Your task to perform on an android device: Go to accessibility settings Image 0: 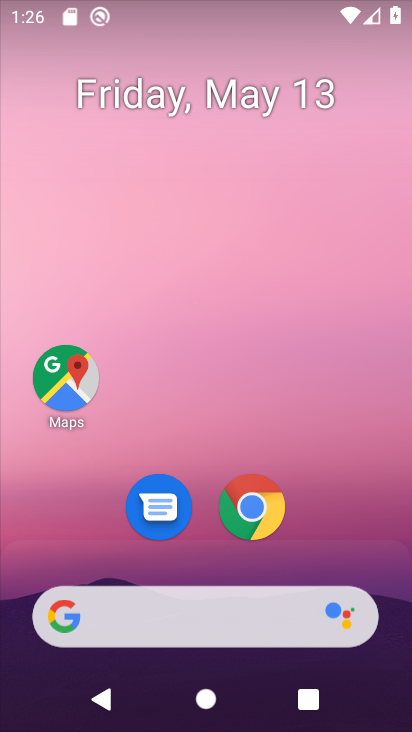
Step 0: drag from (198, 334) to (246, 126)
Your task to perform on an android device: Go to accessibility settings Image 1: 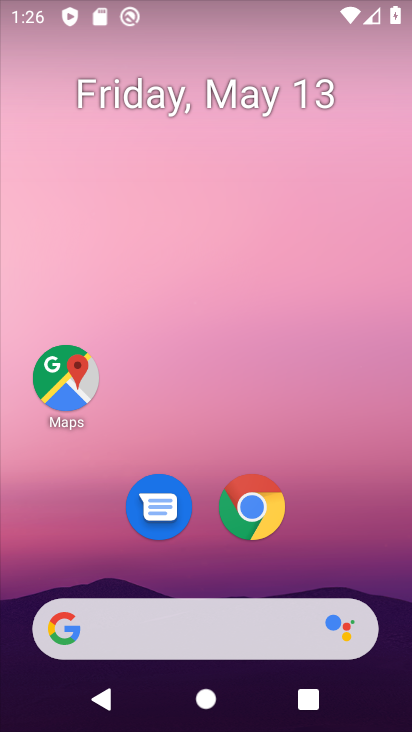
Step 1: drag from (188, 600) to (319, 93)
Your task to perform on an android device: Go to accessibility settings Image 2: 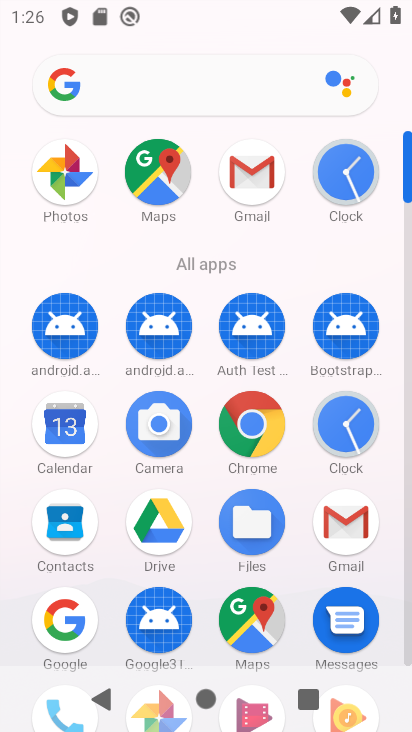
Step 2: drag from (202, 636) to (268, 388)
Your task to perform on an android device: Go to accessibility settings Image 3: 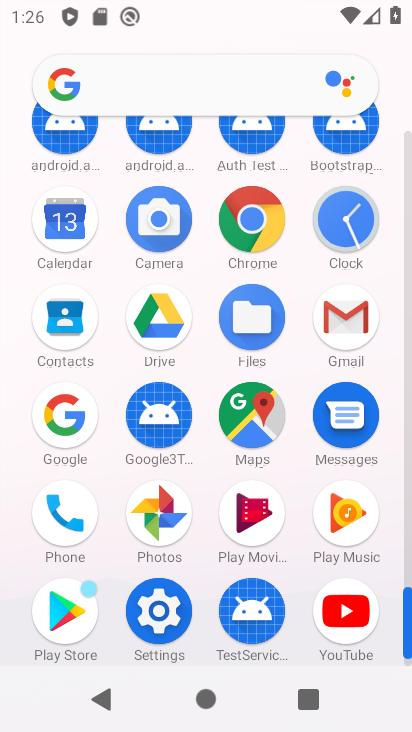
Step 3: click (163, 612)
Your task to perform on an android device: Go to accessibility settings Image 4: 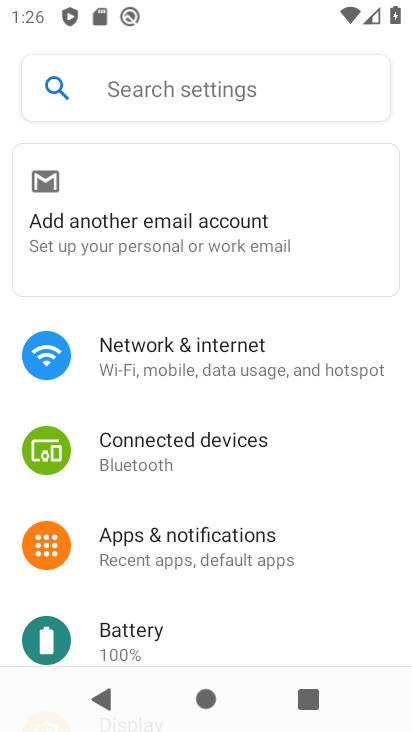
Step 4: drag from (180, 609) to (323, 115)
Your task to perform on an android device: Go to accessibility settings Image 5: 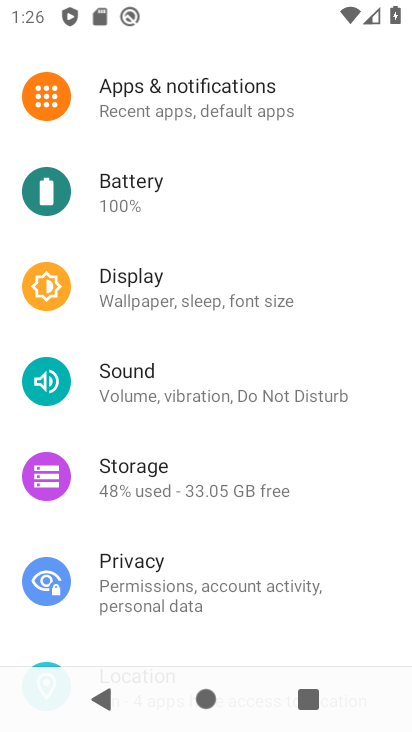
Step 5: drag from (232, 509) to (322, 100)
Your task to perform on an android device: Go to accessibility settings Image 6: 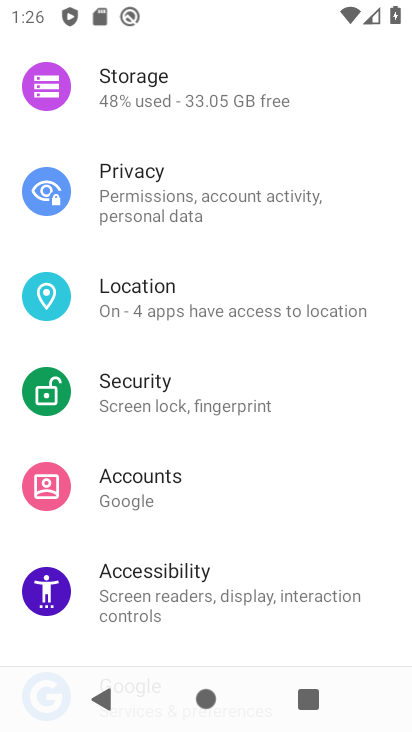
Step 6: drag from (152, 545) to (265, 253)
Your task to perform on an android device: Go to accessibility settings Image 7: 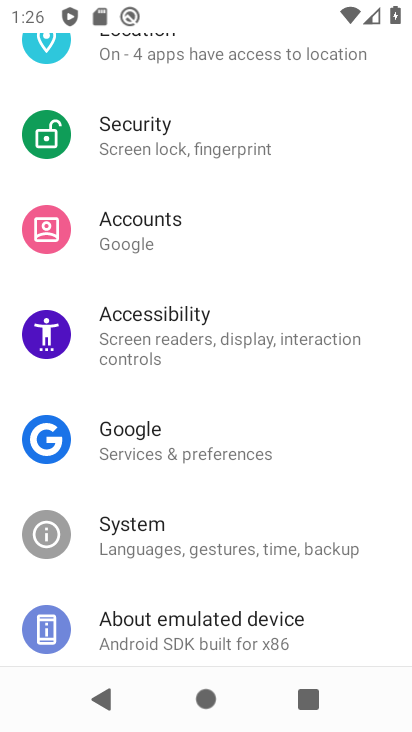
Step 7: click (200, 357)
Your task to perform on an android device: Go to accessibility settings Image 8: 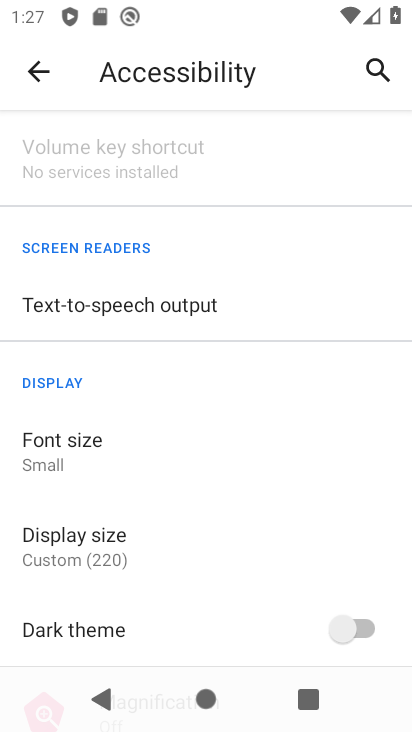
Step 8: task complete